Your task to perform on an android device: When is my next meeting? Image 0: 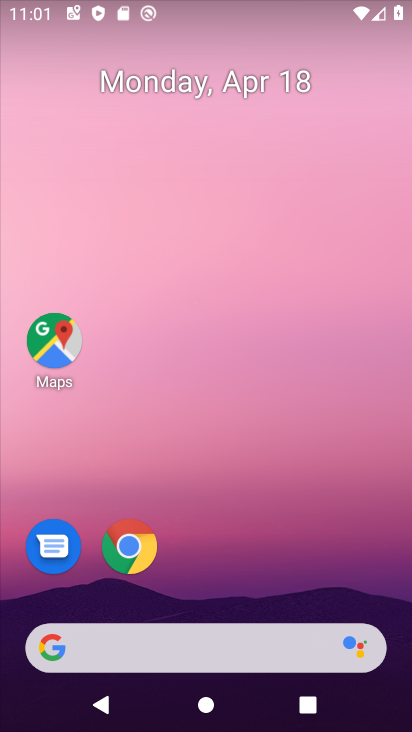
Step 0: drag from (293, 573) to (286, 90)
Your task to perform on an android device: When is my next meeting? Image 1: 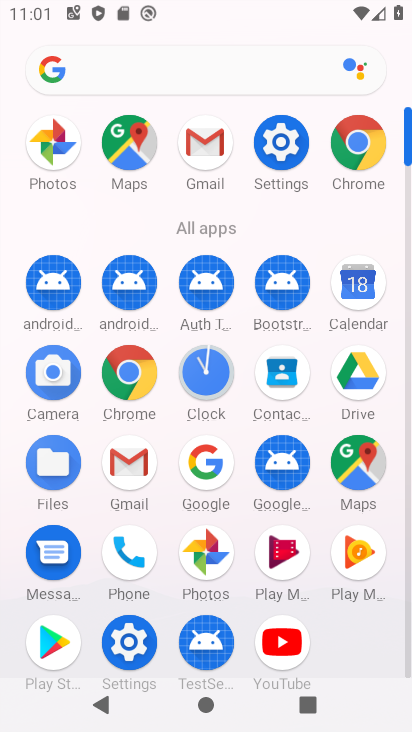
Step 1: click (293, 152)
Your task to perform on an android device: When is my next meeting? Image 2: 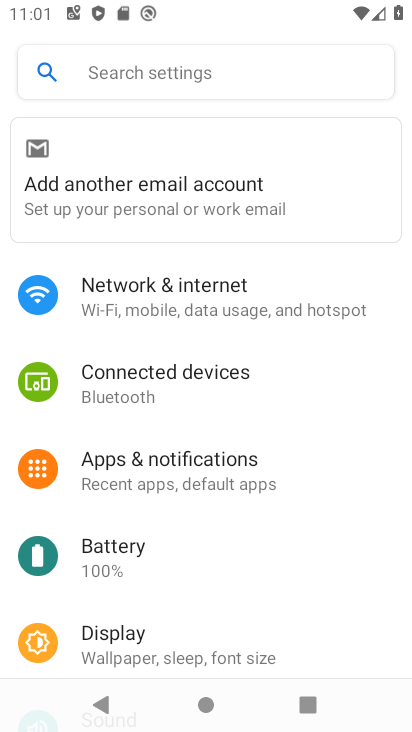
Step 2: drag from (144, 564) to (190, 296)
Your task to perform on an android device: When is my next meeting? Image 3: 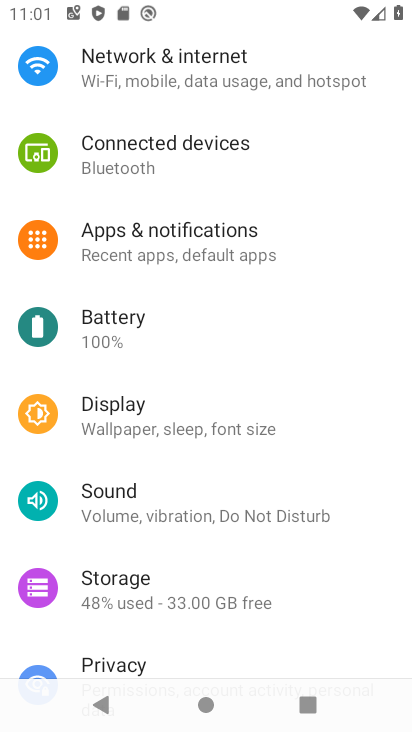
Step 3: click (206, 713)
Your task to perform on an android device: When is my next meeting? Image 4: 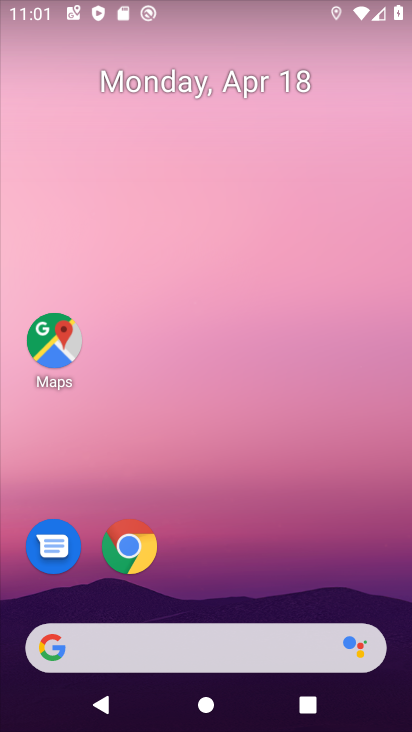
Step 4: drag from (241, 595) to (228, 32)
Your task to perform on an android device: When is my next meeting? Image 5: 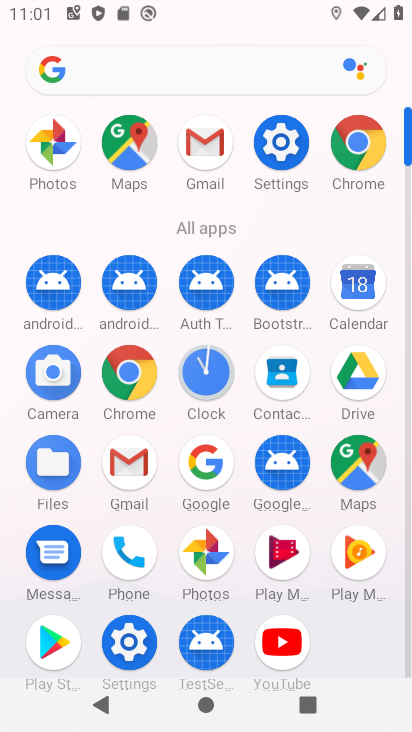
Step 5: click (350, 284)
Your task to perform on an android device: When is my next meeting? Image 6: 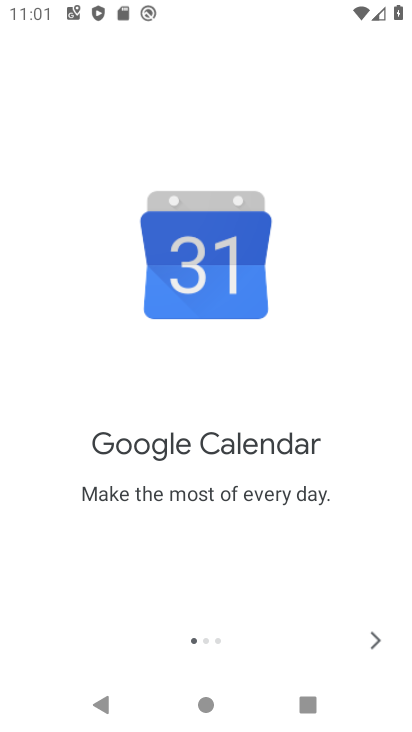
Step 6: click (385, 655)
Your task to perform on an android device: When is my next meeting? Image 7: 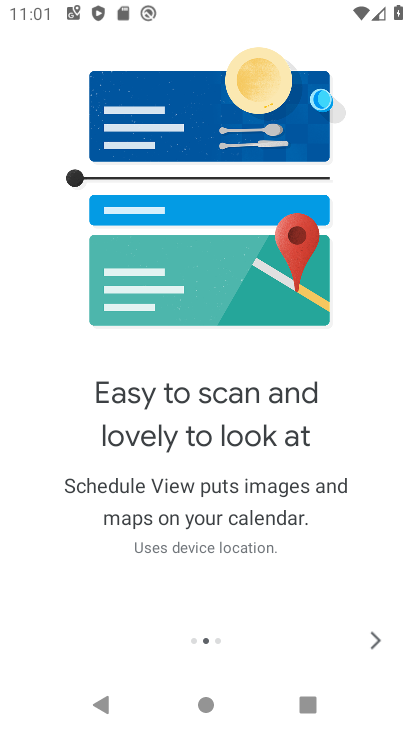
Step 7: click (385, 655)
Your task to perform on an android device: When is my next meeting? Image 8: 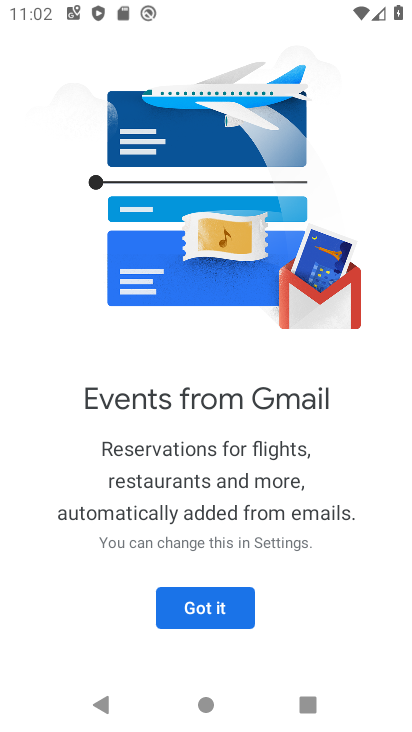
Step 8: click (210, 595)
Your task to perform on an android device: When is my next meeting? Image 9: 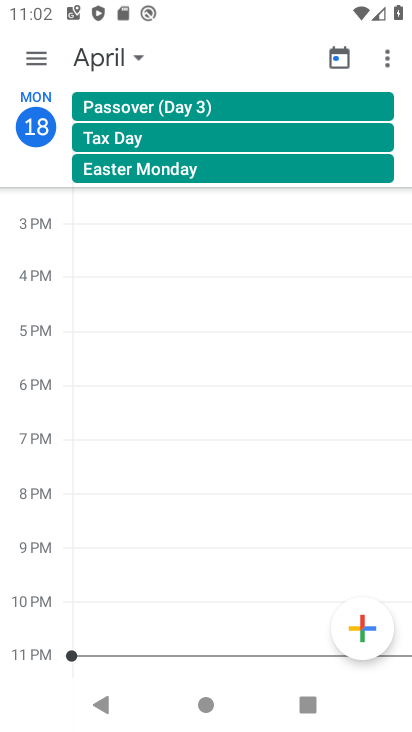
Step 9: task complete